Your task to perform on an android device: turn on sleep mode Image 0: 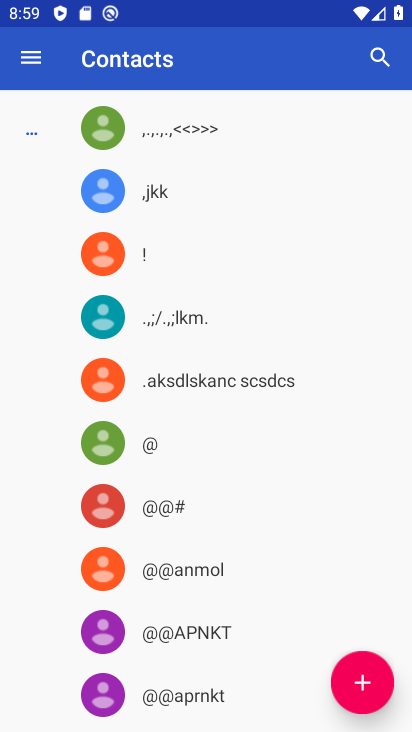
Step 0: task complete